Your task to perform on an android device: Turn off the flashlight Image 0: 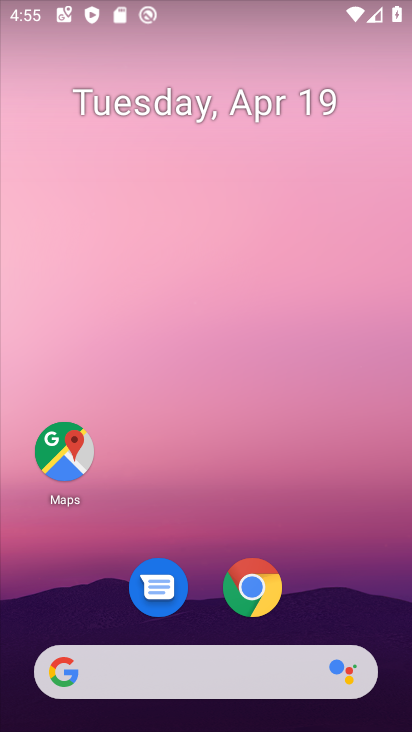
Step 0: drag from (319, 591) to (259, 48)
Your task to perform on an android device: Turn off the flashlight Image 1: 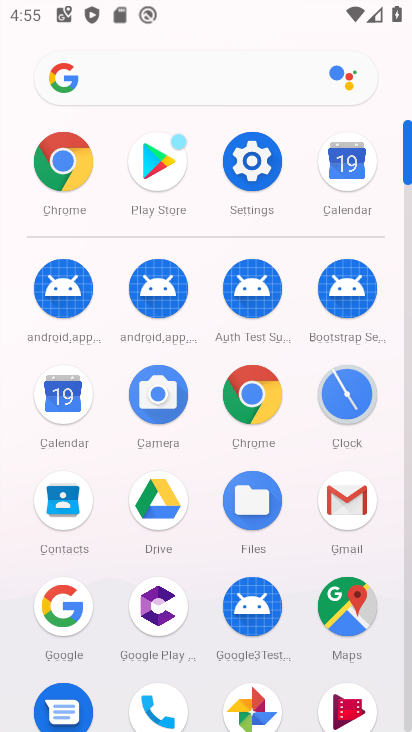
Step 1: drag from (13, 463) to (9, 174)
Your task to perform on an android device: Turn off the flashlight Image 2: 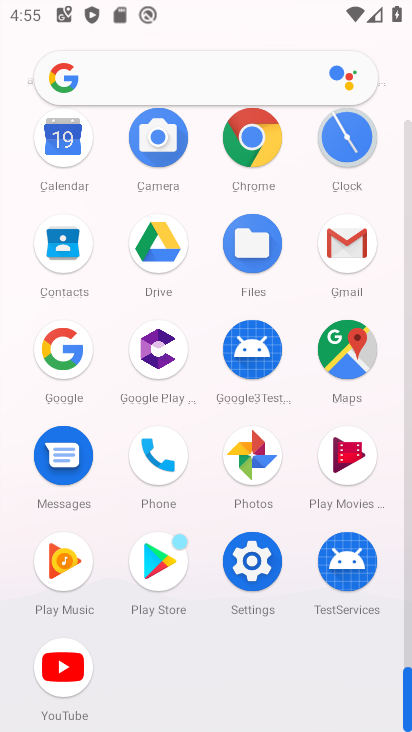
Step 2: click (250, 557)
Your task to perform on an android device: Turn off the flashlight Image 3: 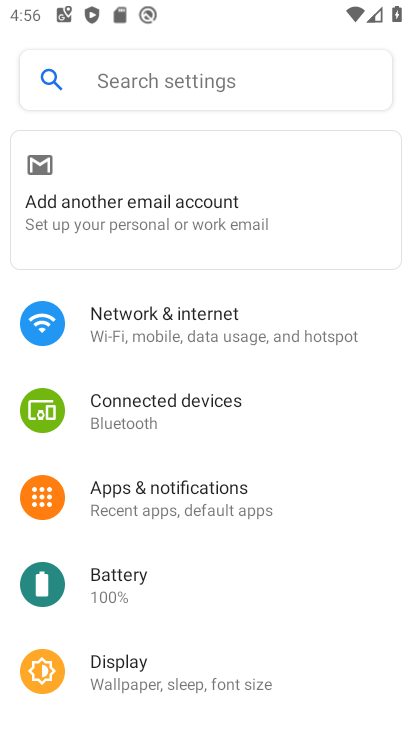
Step 3: drag from (262, 526) to (264, 285)
Your task to perform on an android device: Turn off the flashlight Image 4: 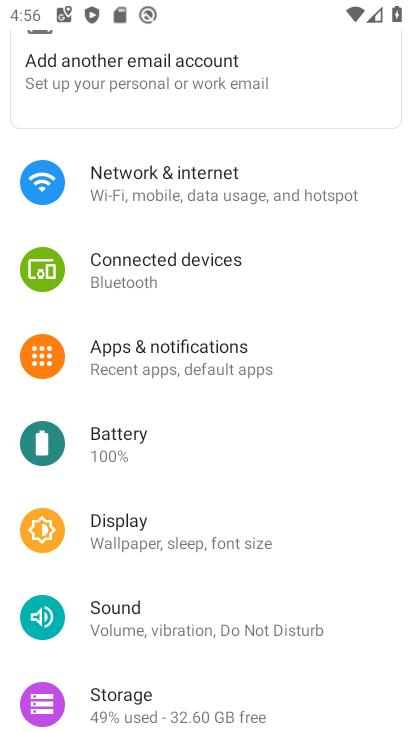
Step 4: click (226, 189)
Your task to perform on an android device: Turn off the flashlight Image 5: 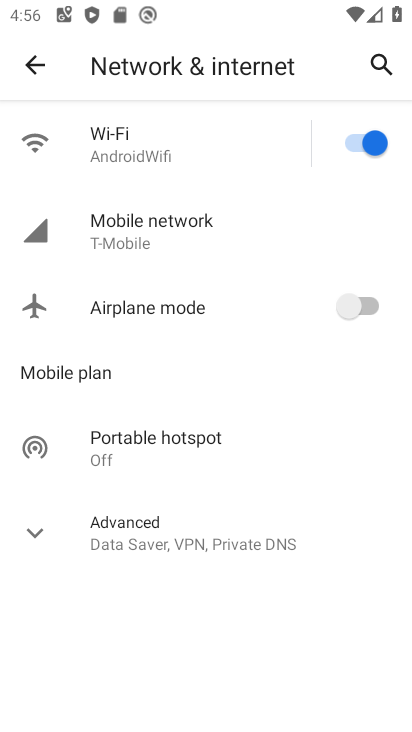
Step 5: drag from (178, 500) to (204, 140)
Your task to perform on an android device: Turn off the flashlight Image 6: 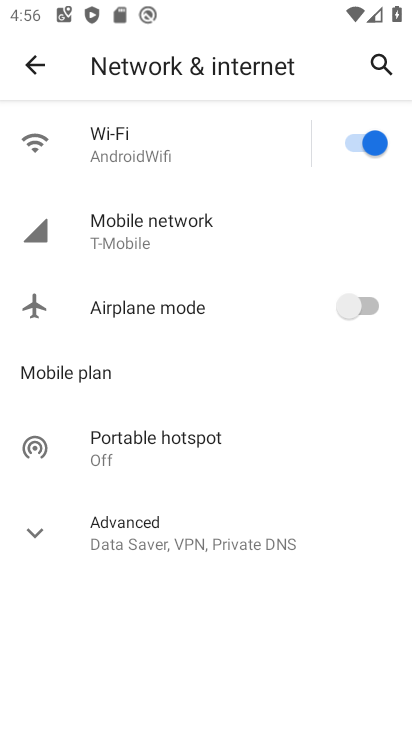
Step 6: drag from (148, 422) to (178, 128)
Your task to perform on an android device: Turn off the flashlight Image 7: 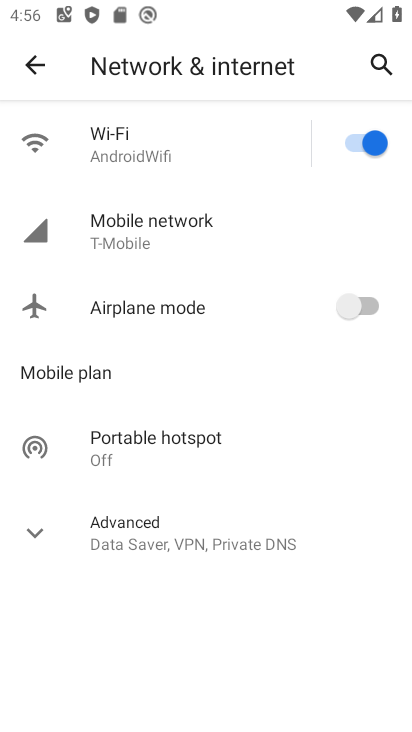
Step 7: drag from (210, 515) to (243, 185)
Your task to perform on an android device: Turn off the flashlight Image 8: 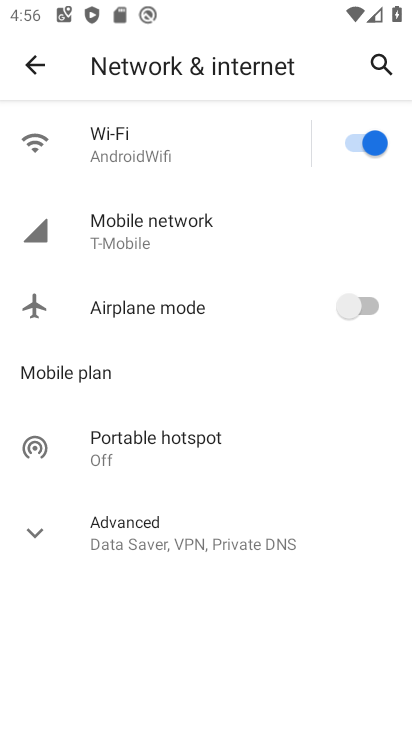
Step 8: drag from (199, 285) to (205, 553)
Your task to perform on an android device: Turn off the flashlight Image 9: 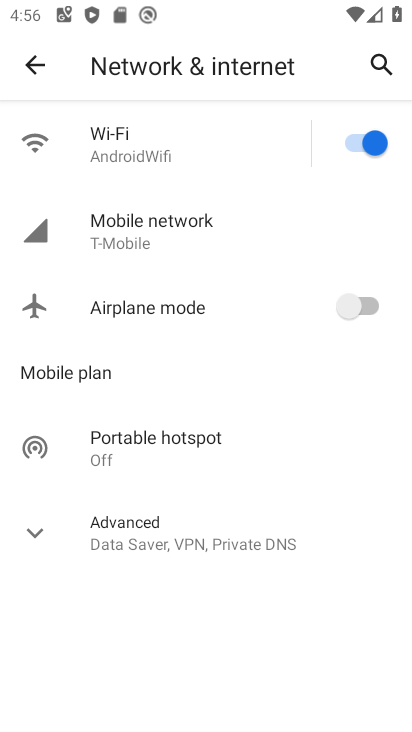
Step 9: click (30, 46)
Your task to perform on an android device: Turn off the flashlight Image 10: 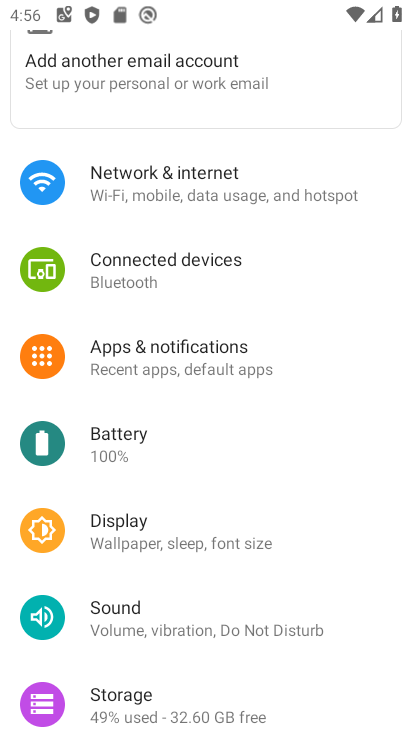
Step 10: task complete